Your task to perform on an android device: turn off improve location accuracy Image 0: 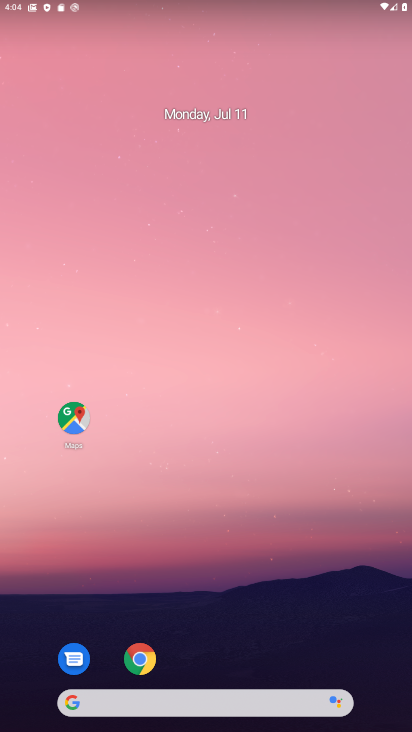
Step 0: drag from (241, 570) to (201, 6)
Your task to perform on an android device: turn off improve location accuracy Image 1: 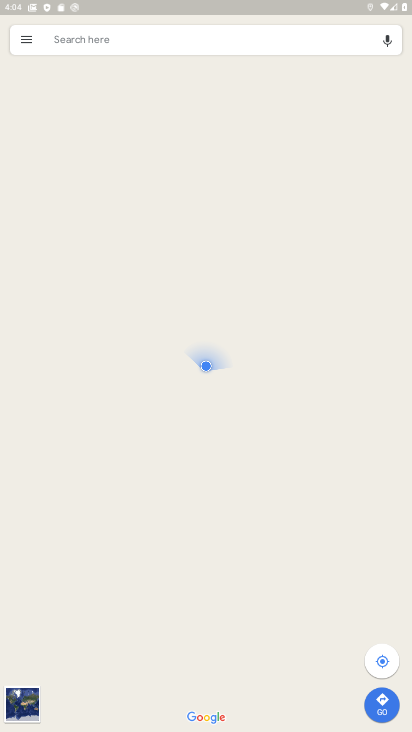
Step 1: drag from (299, 6) to (157, 726)
Your task to perform on an android device: turn off improve location accuracy Image 2: 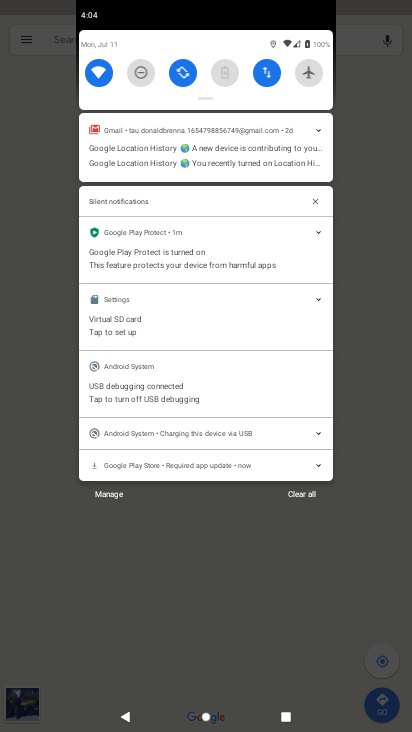
Step 2: drag from (211, 57) to (161, 662)
Your task to perform on an android device: turn off improve location accuracy Image 3: 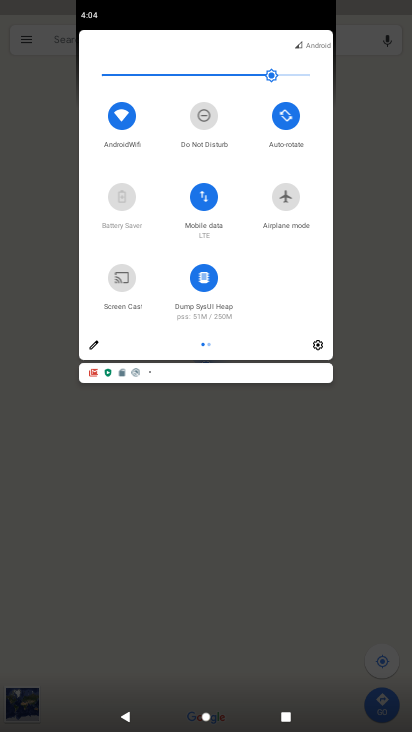
Step 3: click (318, 341)
Your task to perform on an android device: turn off improve location accuracy Image 4: 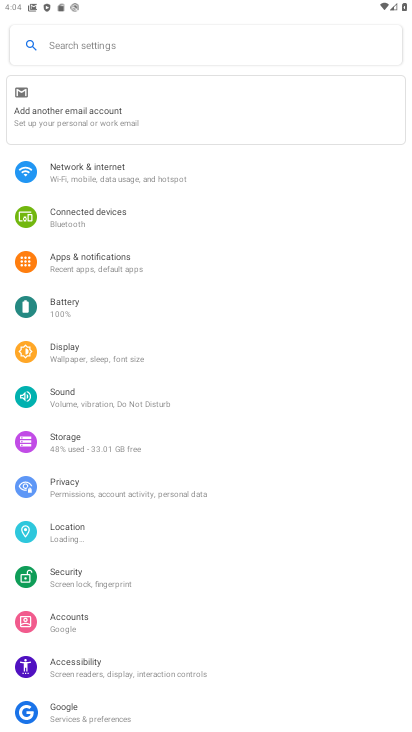
Step 4: click (95, 527)
Your task to perform on an android device: turn off improve location accuracy Image 5: 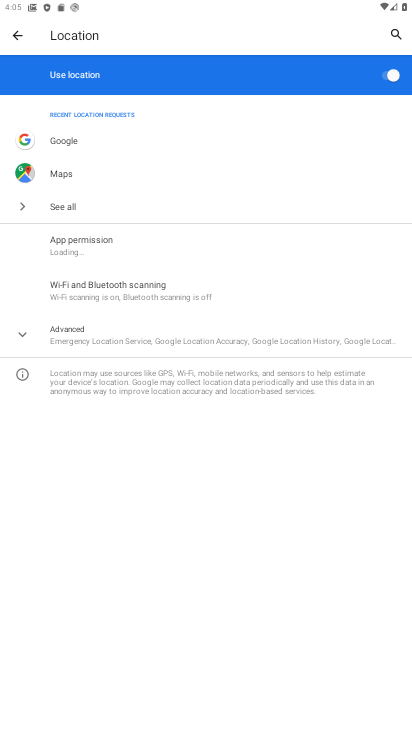
Step 5: click (136, 338)
Your task to perform on an android device: turn off improve location accuracy Image 6: 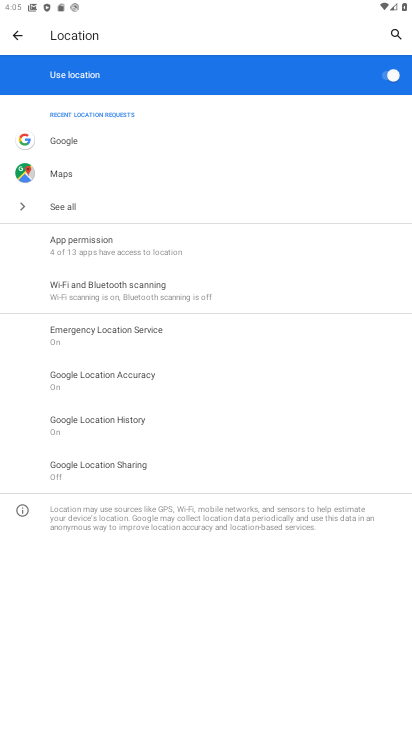
Step 6: click (159, 373)
Your task to perform on an android device: turn off improve location accuracy Image 7: 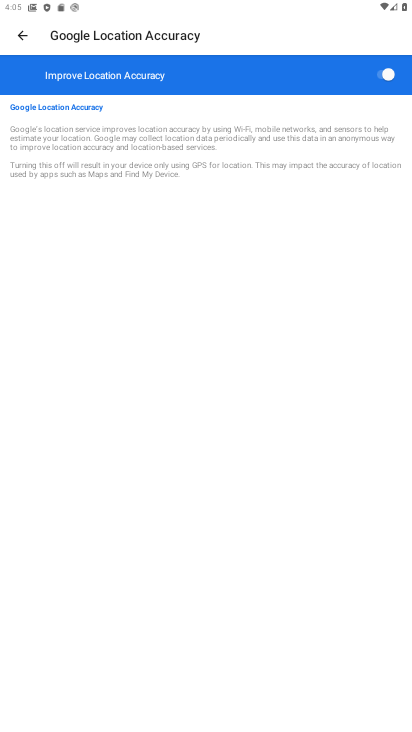
Step 7: click (382, 78)
Your task to perform on an android device: turn off improve location accuracy Image 8: 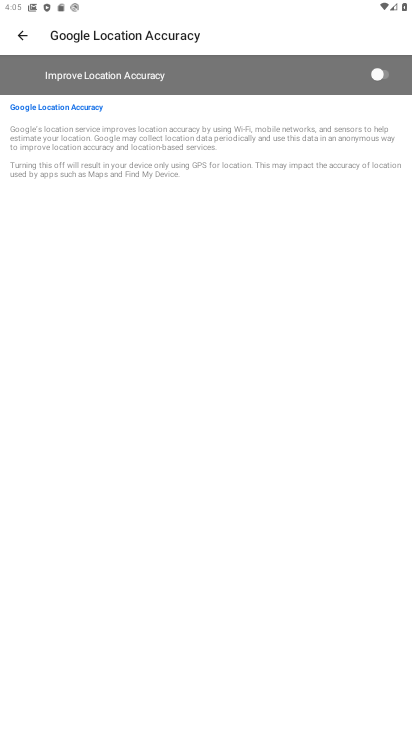
Step 8: task complete